Your task to perform on an android device: Is it going to rain this weekend? Image 0: 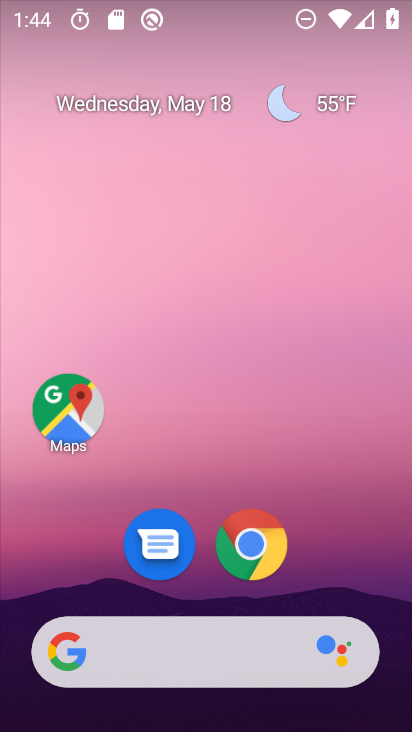
Step 0: drag from (324, 566) to (302, 177)
Your task to perform on an android device: Is it going to rain this weekend? Image 1: 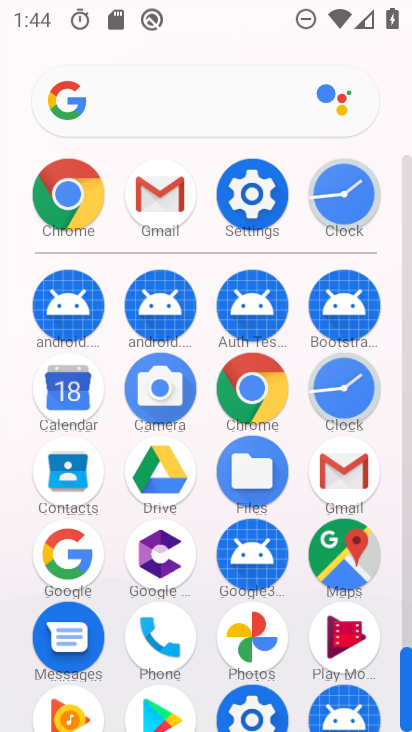
Step 1: click (71, 375)
Your task to perform on an android device: Is it going to rain this weekend? Image 2: 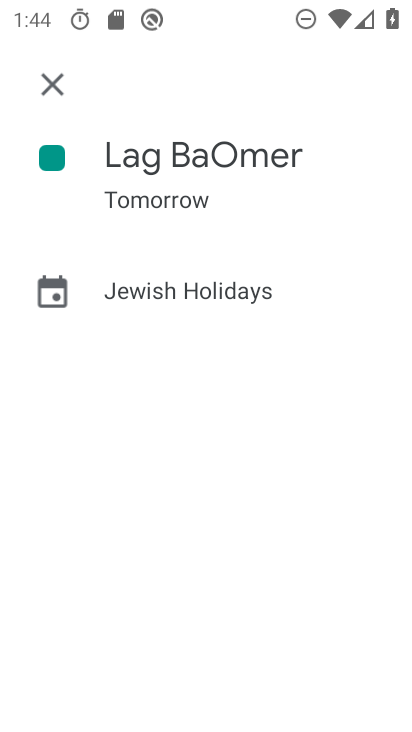
Step 2: press back button
Your task to perform on an android device: Is it going to rain this weekend? Image 3: 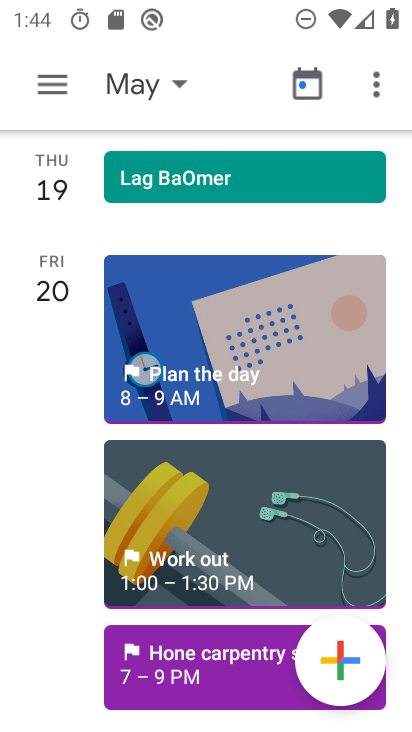
Step 3: press home button
Your task to perform on an android device: Is it going to rain this weekend? Image 4: 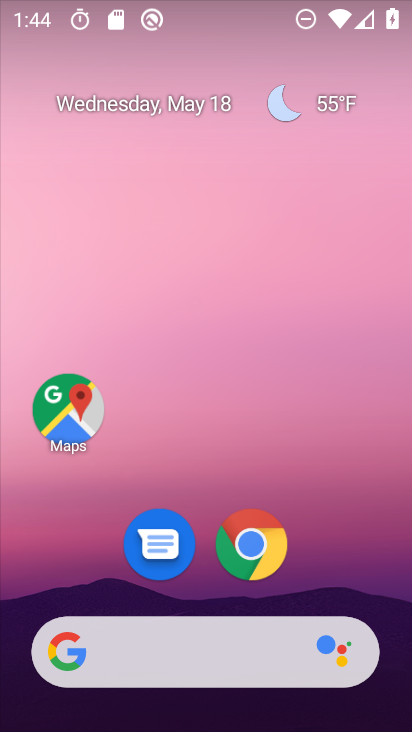
Step 4: click (209, 664)
Your task to perform on an android device: Is it going to rain this weekend? Image 5: 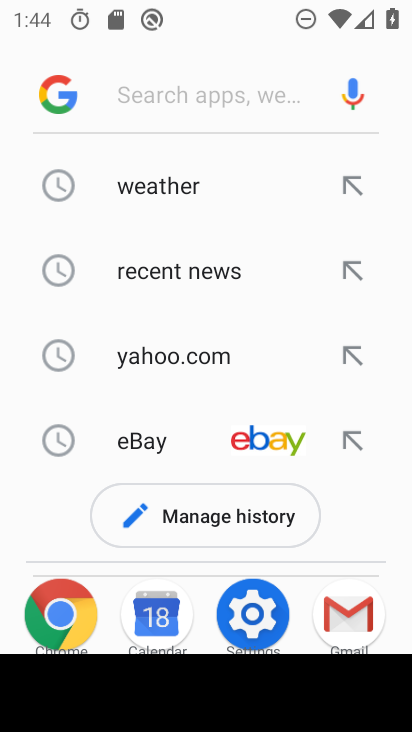
Step 5: click (224, 190)
Your task to perform on an android device: Is it going to rain this weekend? Image 6: 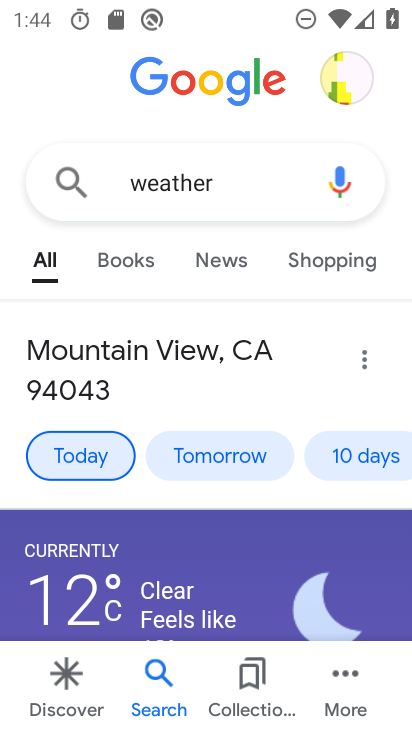
Step 6: click (388, 449)
Your task to perform on an android device: Is it going to rain this weekend? Image 7: 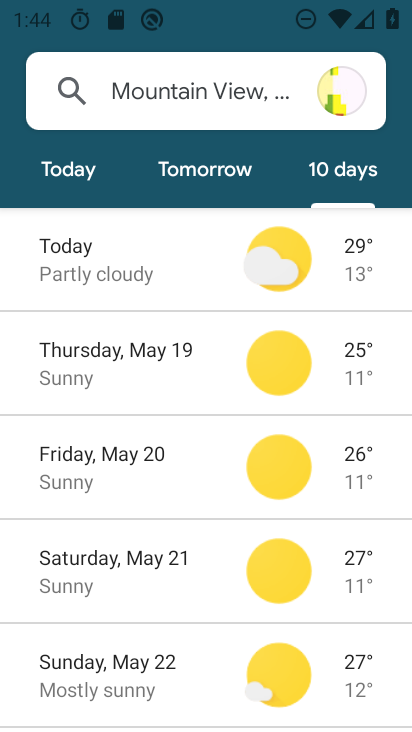
Step 7: task complete